Your task to perform on an android device: check android version Image 0: 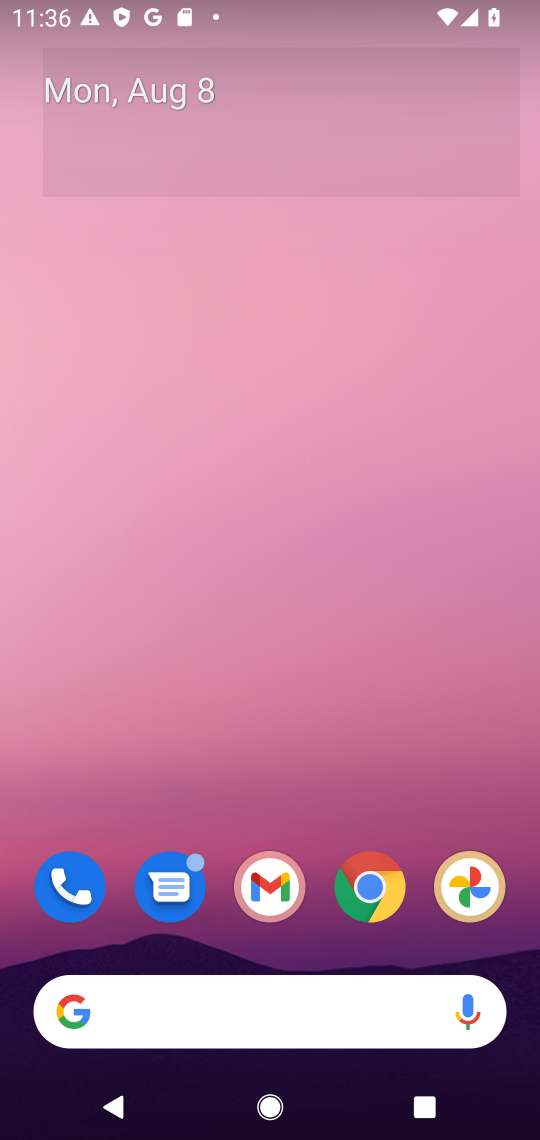
Step 0: drag from (330, 766) to (307, 209)
Your task to perform on an android device: check android version Image 1: 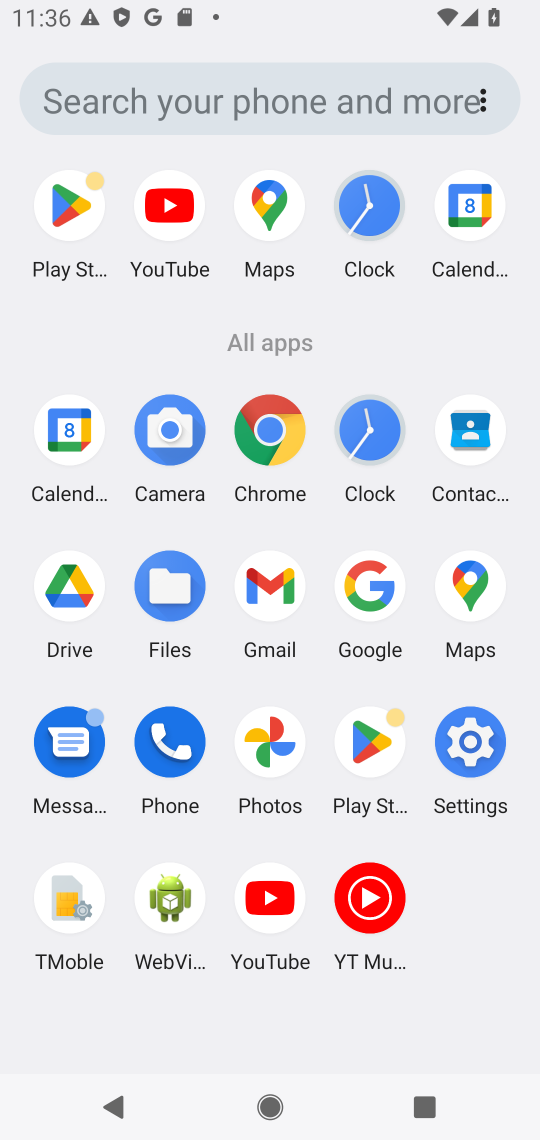
Step 1: click (473, 743)
Your task to perform on an android device: check android version Image 2: 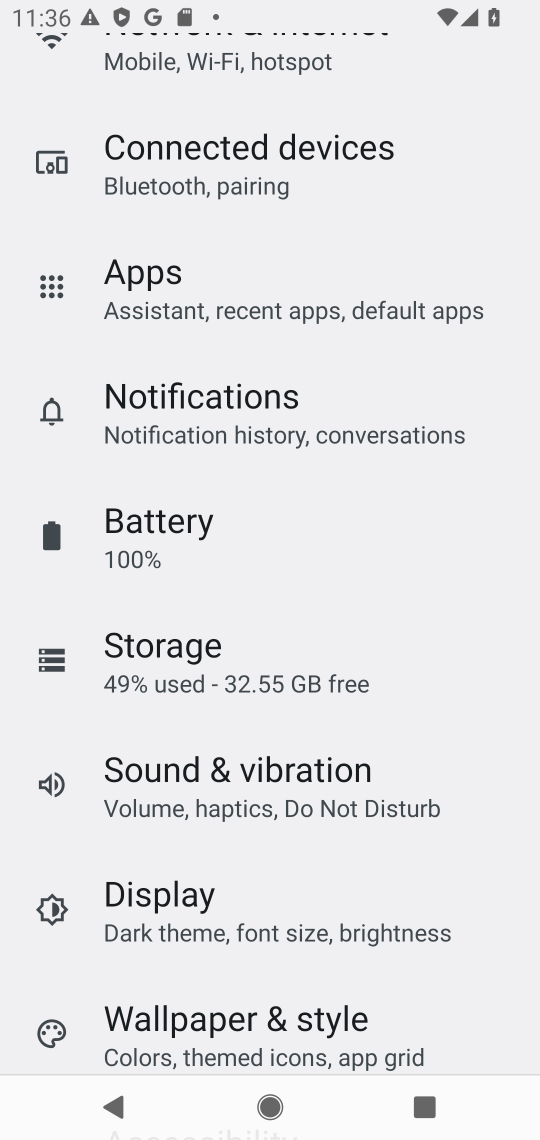
Step 2: drag from (344, 840) to (299, 237)
Your task to perform on an android device: check android version Image 3: 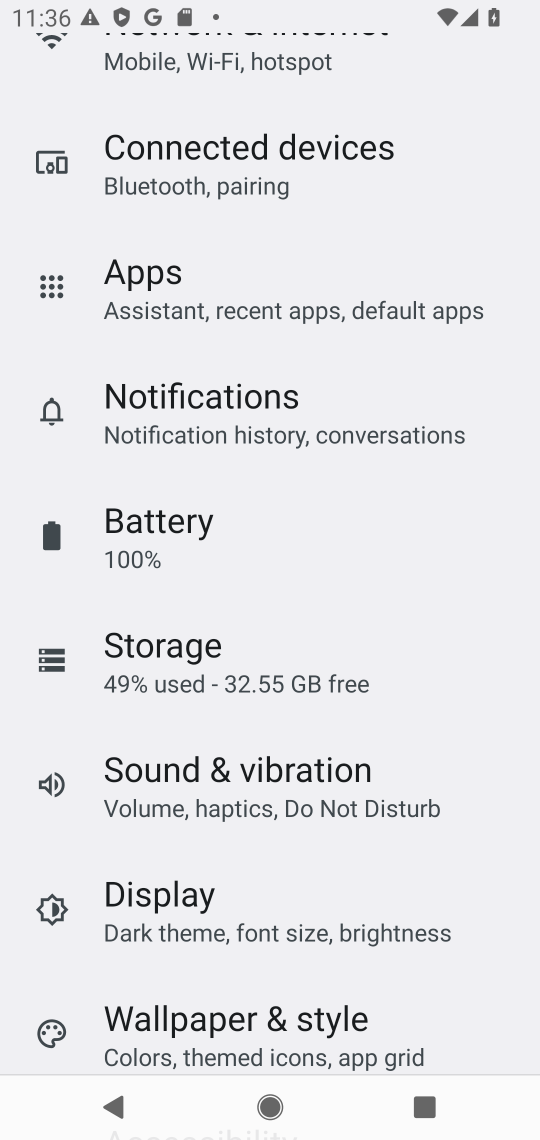
Step 3: drag from (400, 874) to (346, 438)
Your task to perform on an android device: check android version Image 4: 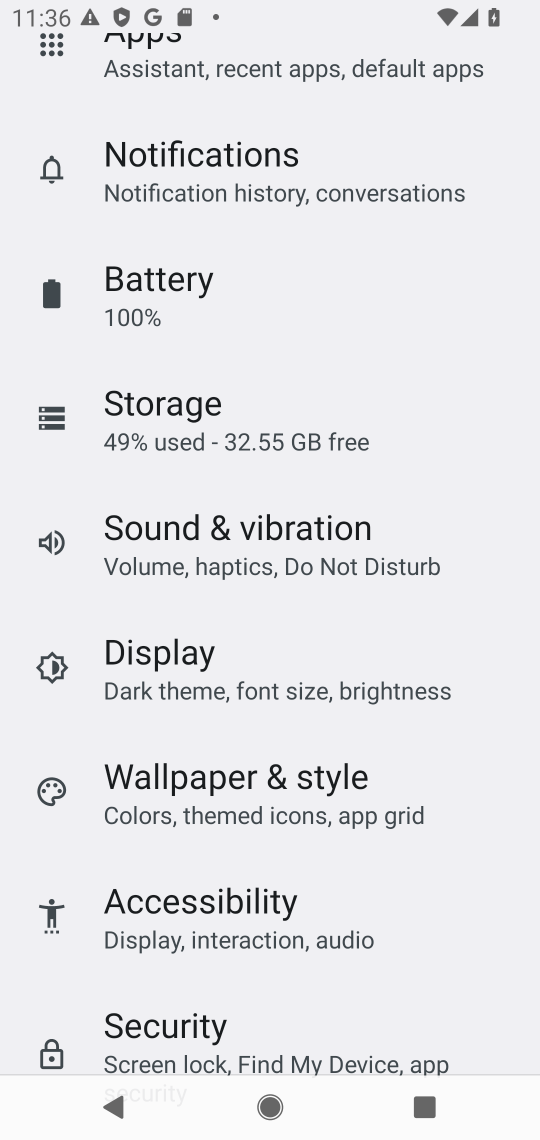
Step 4: drag from (412, 876) to (399, 385)
Your task to perform on an android device: check android version Image 5: 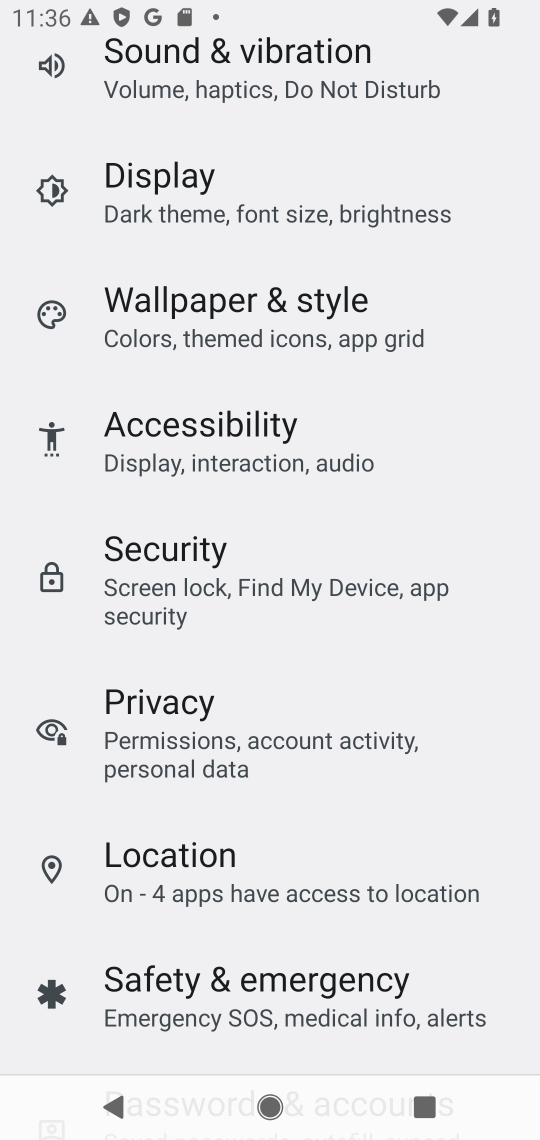
Step 5: drag from (372, 827) to (339, 350)
Your task to perform on an android device: check android version Image 6: 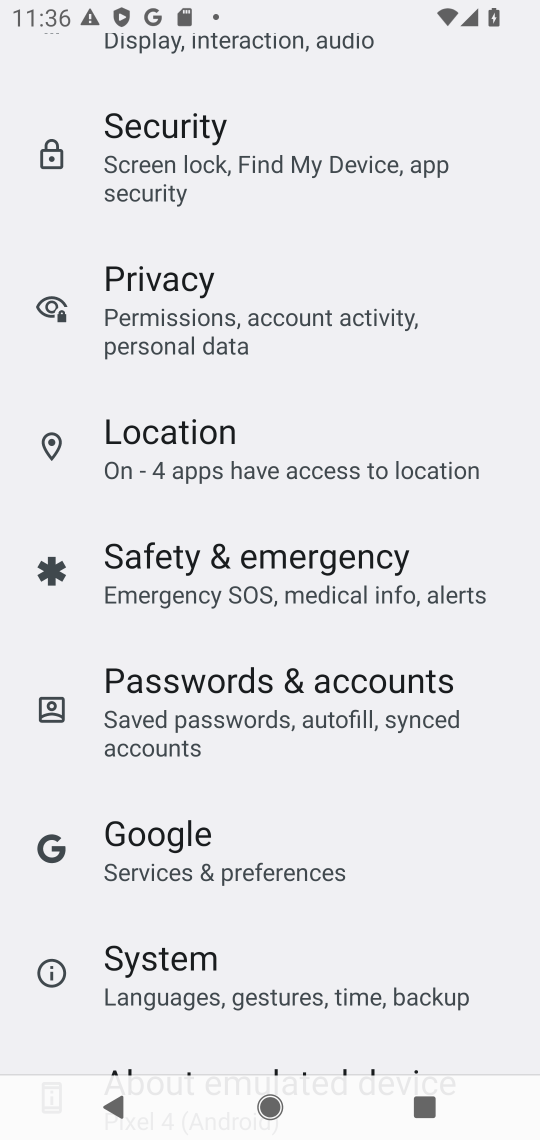
Step 6: drag from (410, 800) to (334, 181)
Your task to perform on an android device: check android version Image 7: 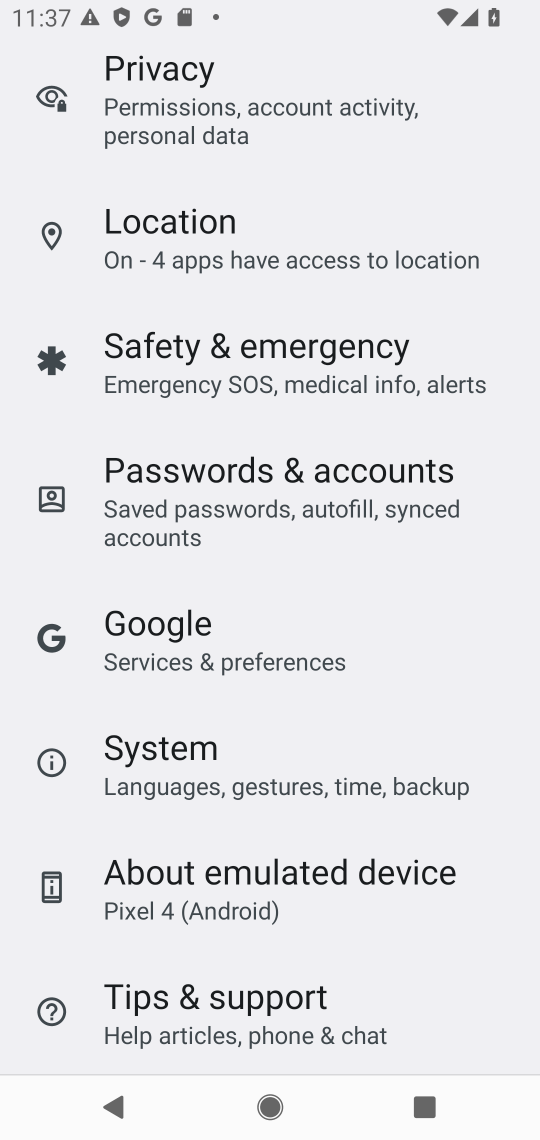
Step 7: click (263, 870)
Your task to perform on an android device: check android version Image 8: 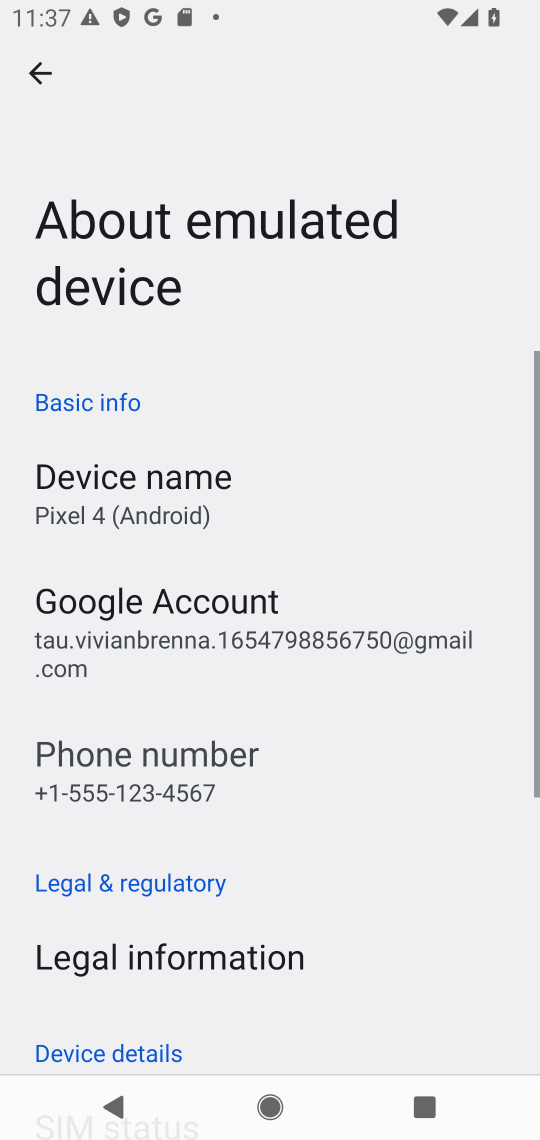
Step 8: task complete